Your task to perform on an android device: Open Google Image 0: 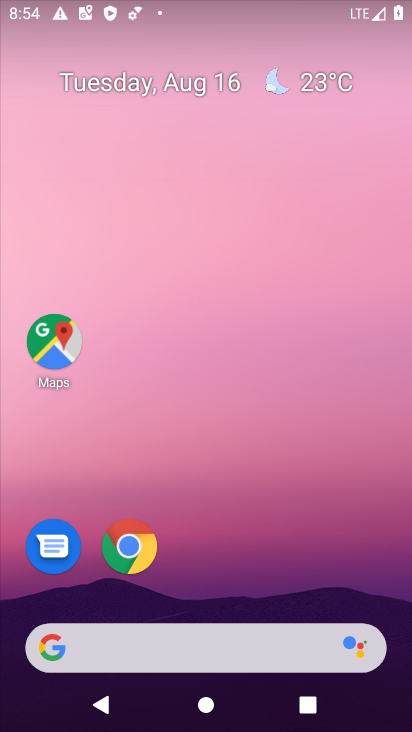
Step 0: click (223, 638)
Your task to perform on an android device: Open Google Image 1: 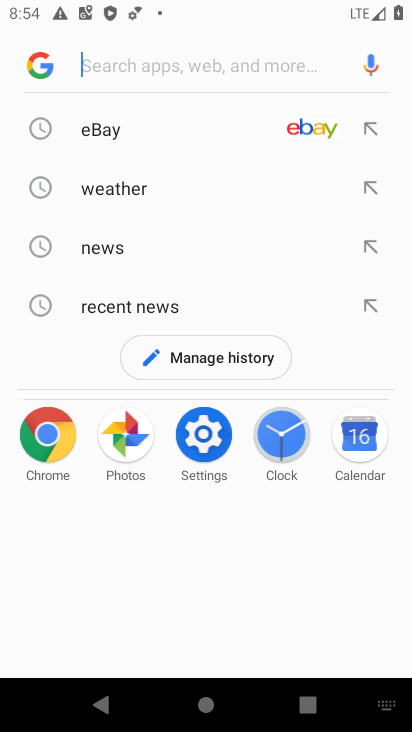
Step 1: click (37, 65)
Your task to perform on an android device: Open Google Image 2: 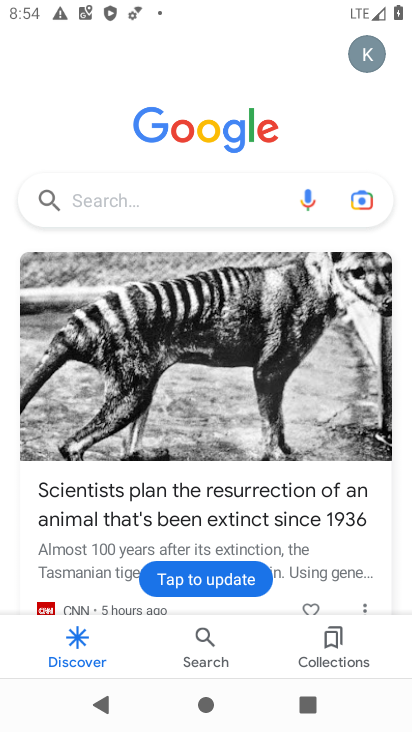
Step 2: task complete